Your task to perform on an android device: Open Google Chrome and open the bookmarks view Image 0: 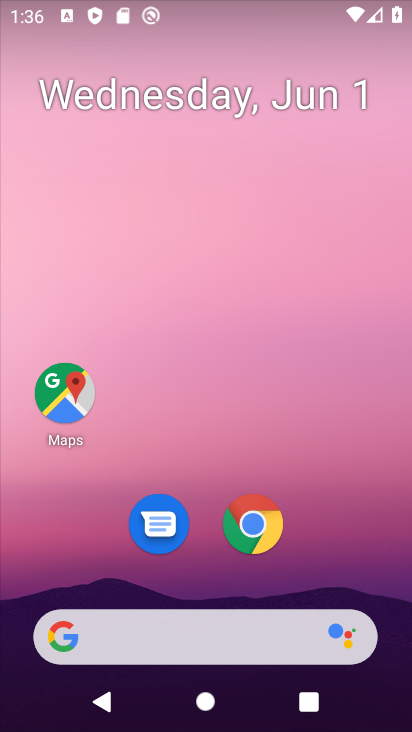
Step 0: click (246, 510)
Your task to perform on an android device: Open Google Chrome and open the bookmarks view Image 1: 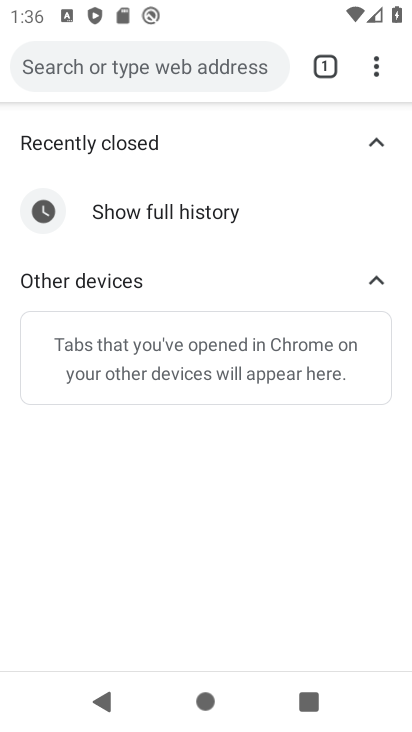
Step 1: click (374, 70)
Your task to perform on an android device: Open Google Chrome and open the bookmarks view Image 2: 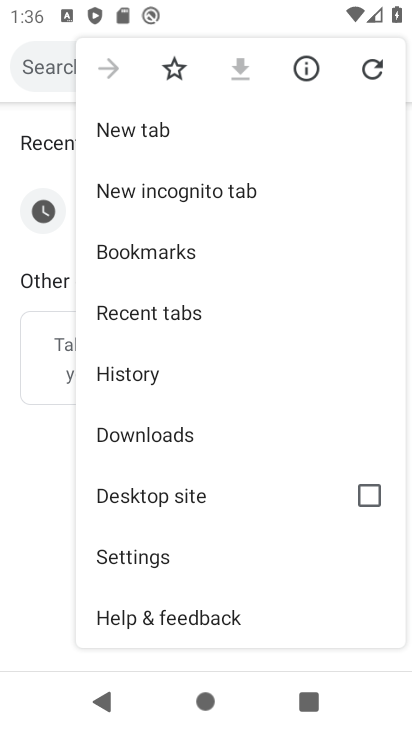
Step 2: click (204, 249)
Your task to perform on an android device: Open Google Chrome and open the bookmarks view Image 3: 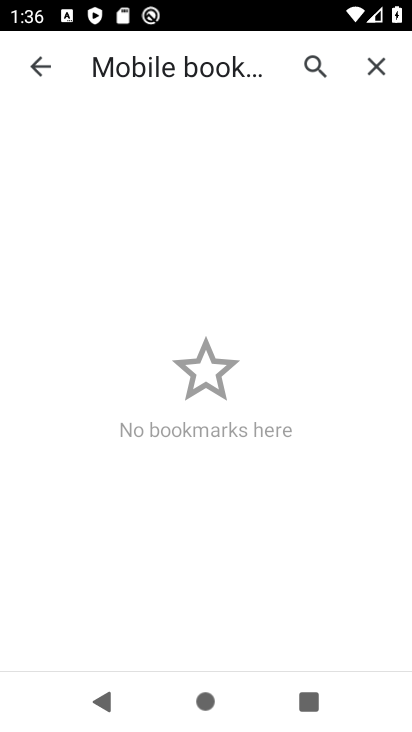
Step 3: task complete